Your task to perform on an android device: change keyboard looks Image 0: 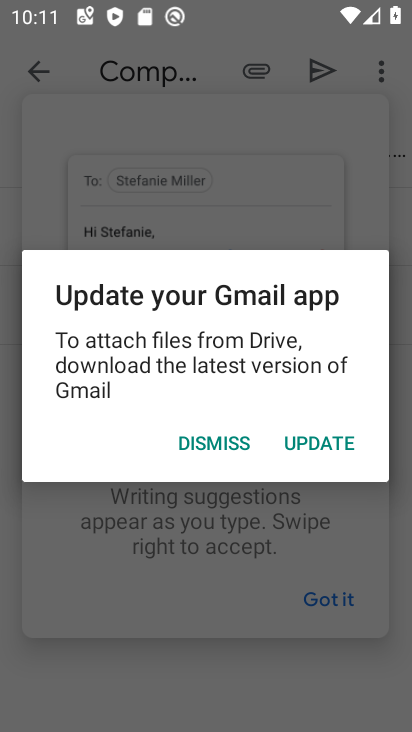
Step 0: press home button
Your task to perform on an android device: change keyboard looks Image 1: 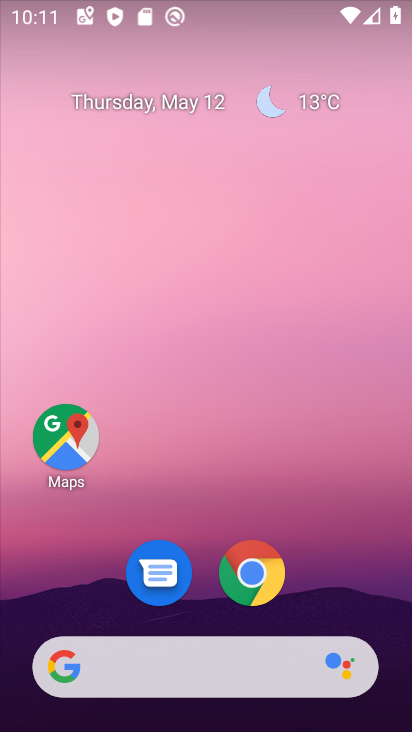
Step 1: drag from (202, 645) to (210, 1)
Your task to perform on an android device: change keyboard looks Image 2: 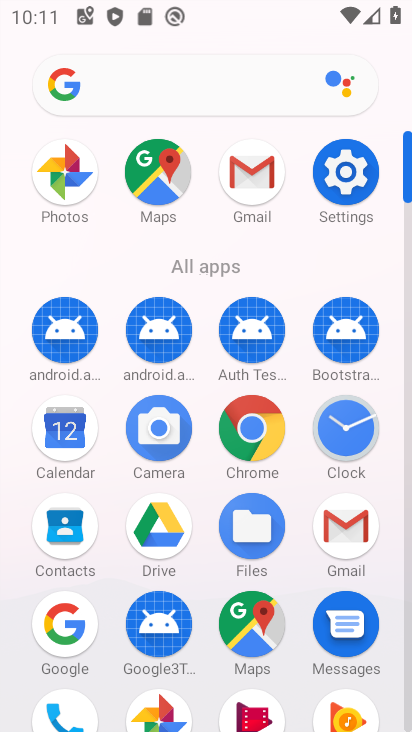
Step 2: click (335, 167)
Your task to perform on an android device: change keyboard looks Image 3: 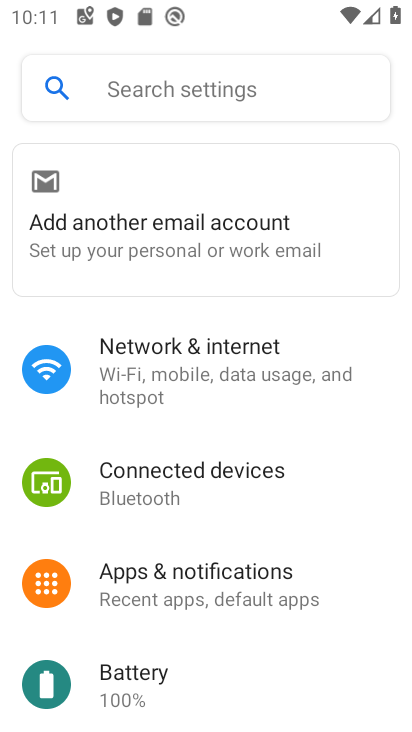
Step 3: drag from (229, 530) to (178, 180)
Your task to perform on an android device: change keyboard looks Image 4: 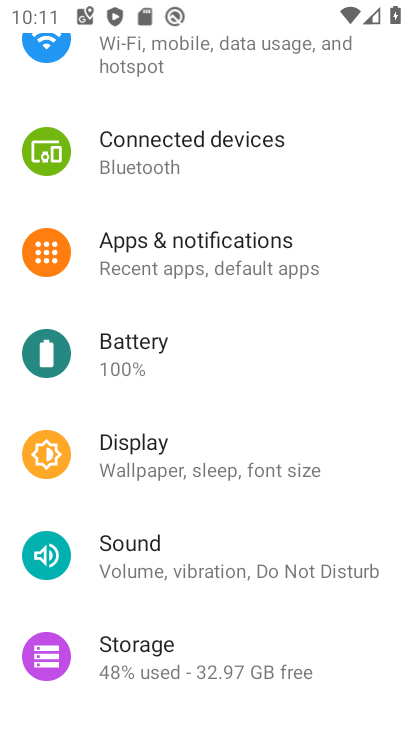
Step 4: drag from (180, 540) to (135, 114)
Your task to perform on an android device: change keyboard looks Image 5: 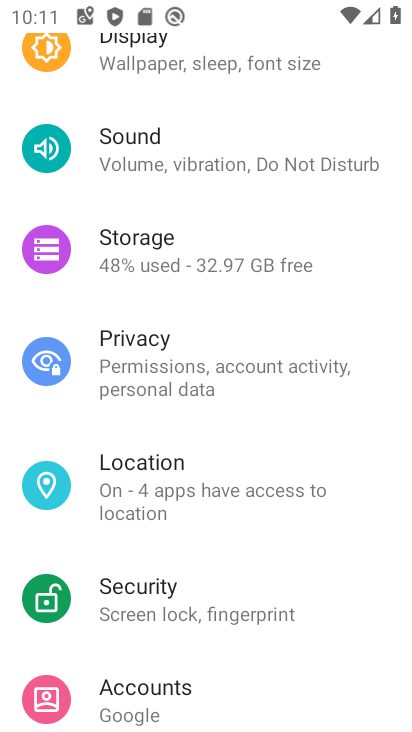
Step 5: drag from (173, 602) to (133, 31)
Your task to perform on an android device: change keyboard looks Image 6: 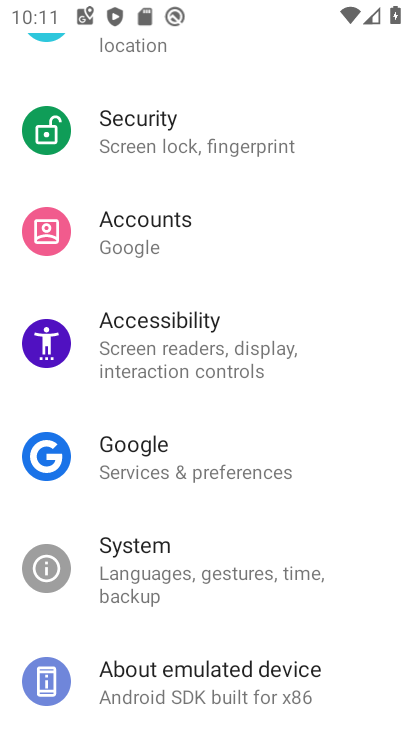
Step 6: click (167, 553)
Your task to perform on an android device: change keyboard looks Image 7: 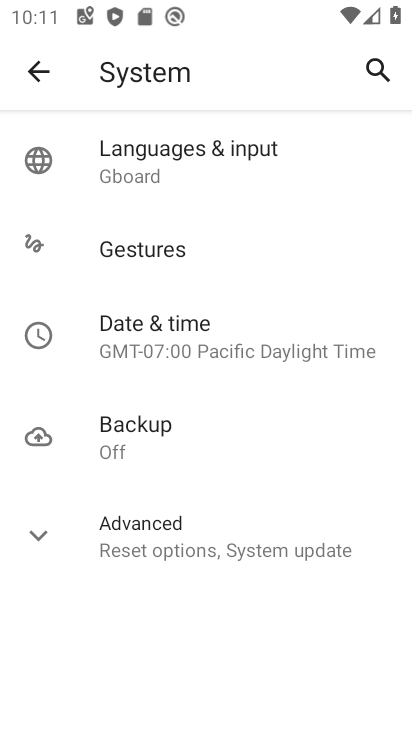
Step 7: click (157, 139)
Your task to perform on an android device: change keyboard looks Image 8: 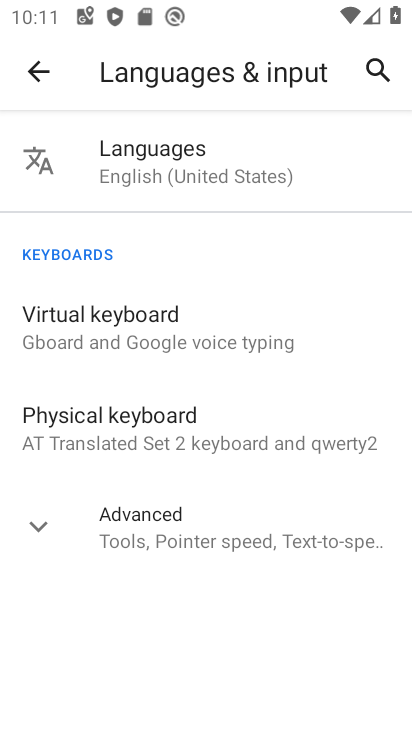
Step 8: click (147, 314)
Your task to perform on an android device: change keyboard looks Image 9: 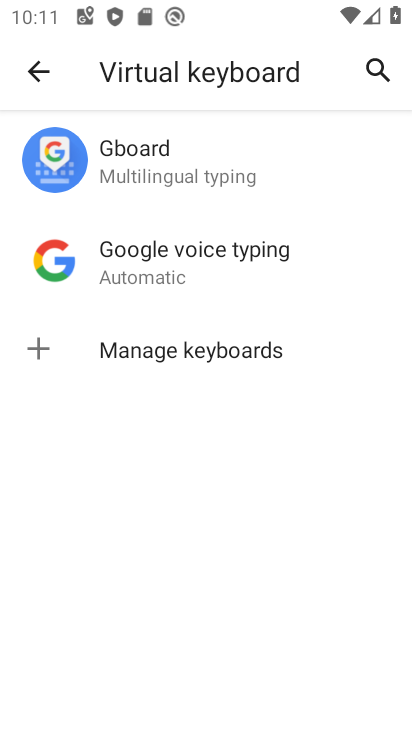
Step 9: click (140, 168)
Your task to perform on an android device: change keyboard looks Image 10: 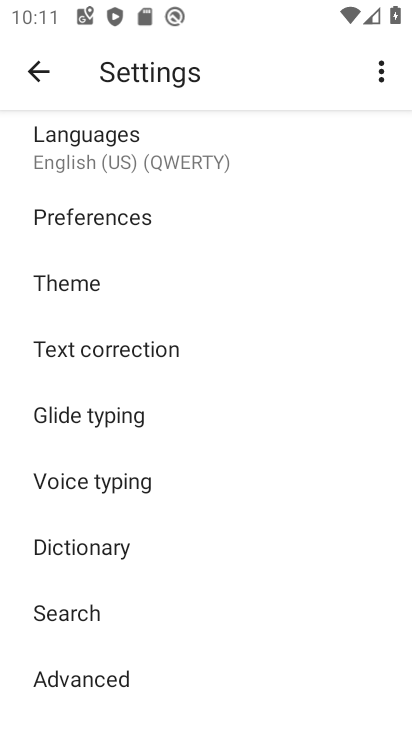
Step 10: click (34, 280)
Your task to perform on an android device: change keyboard looks Image 11: 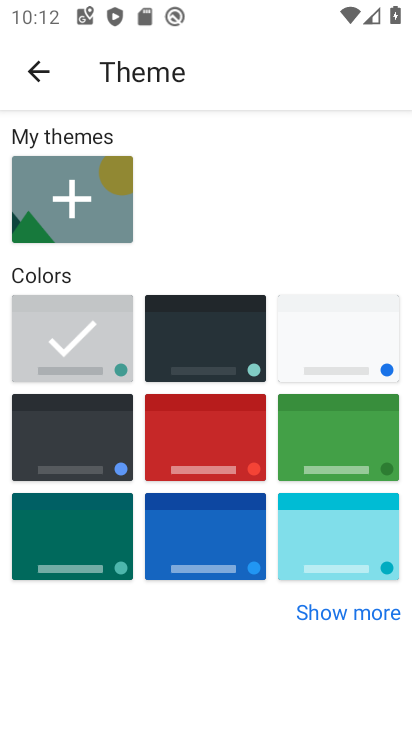
Step 11: click (173, 450)
Your task to perform on an android device: change keyboard looks Image 12: 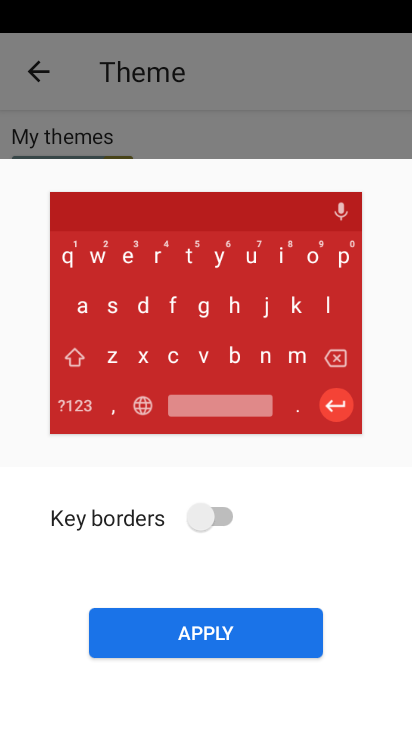
Step 12: click (196, 641)
Your task to perform on an android device: change keyboard looks Image 13: 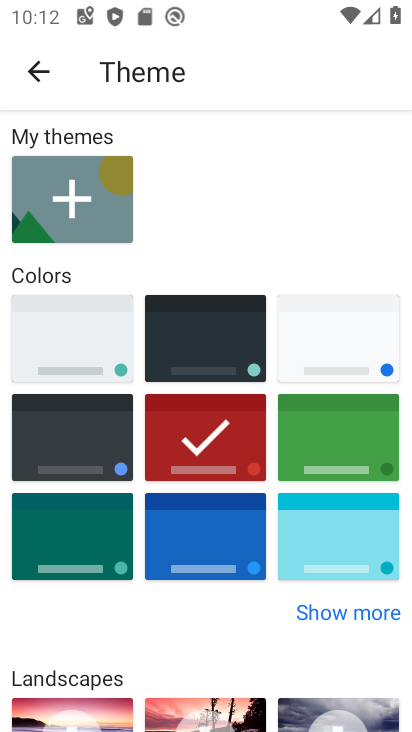
Step 13: task complete